Your task to perform on an android device: add a contact in the contacts app Image 0: 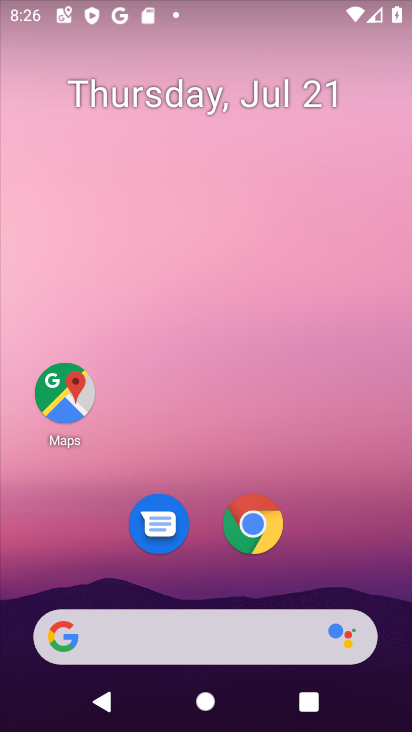
Step 0: drag from (192, 627) to (273, 143)
Your task to perform on an android device: add a contact in the contacts app Image 1: 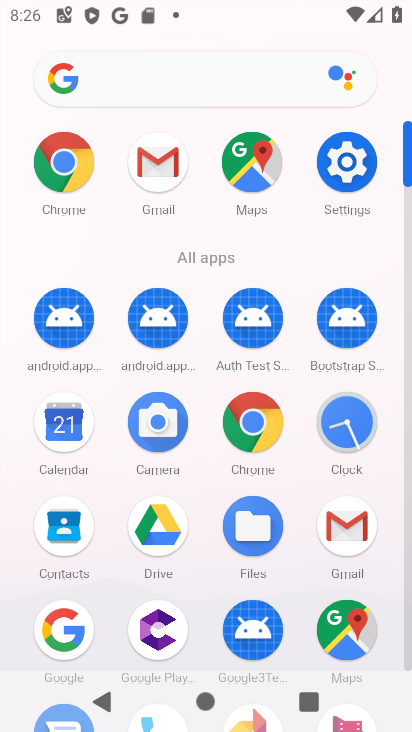
Step 1: click (56, 524)
Your task to perform on an android device: add a contact in the contacts app Image 2: 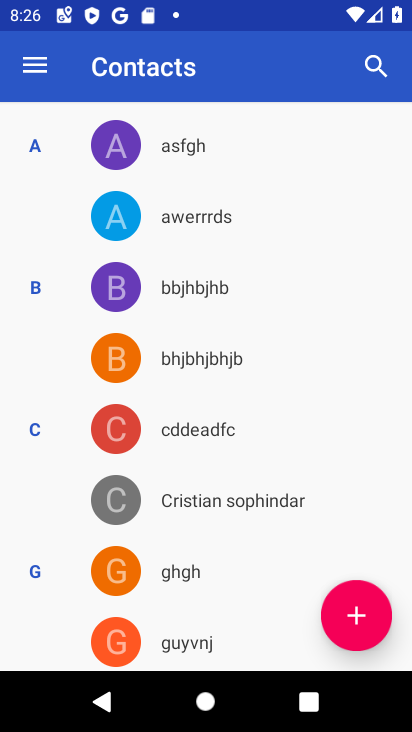
Step 2: click (366, 615)
Your task to perform on an android device: add a contact in the contacts app Image 3: 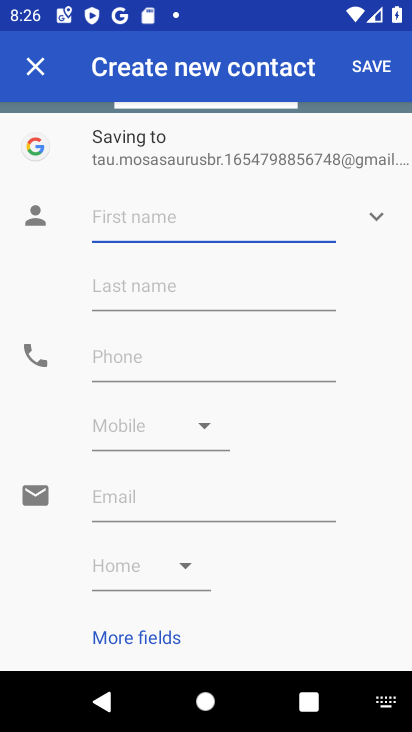
Step 3: type "buwklohg"
Your task to perform on an android device: add a contact in the contacts app Image 4: 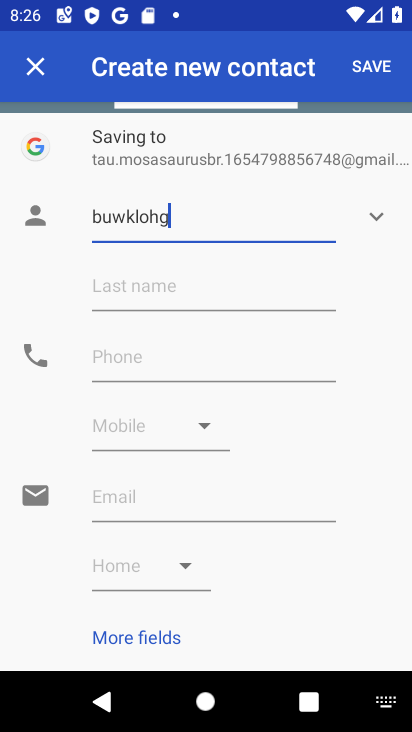
Step 4: click (98, 345)
Your task to perform on an android device: add a contact in the contacts app Image 5: 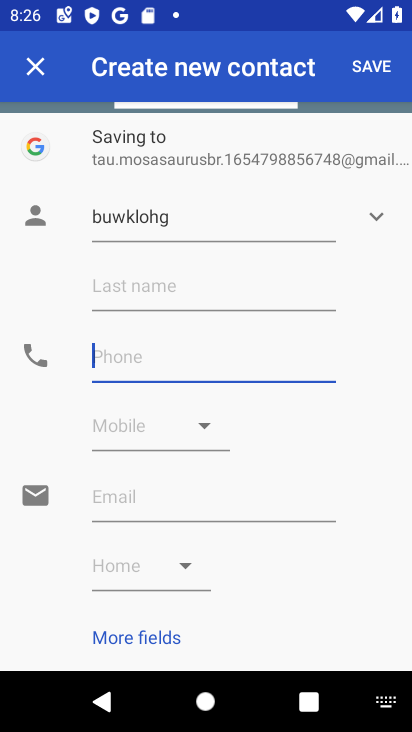
Step 5: type "152876"
Your task to perform on an android device: add a contact in the contacts app Image 6: 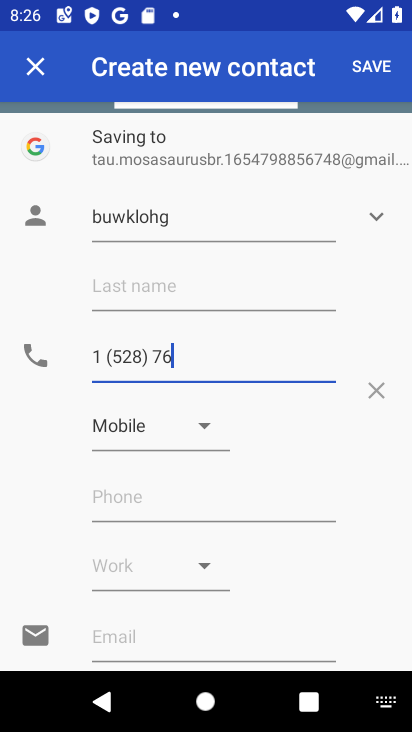
Step 6: click (380, 59)
Your task to perform on an android device: add a contact in the contacts app Image 7: 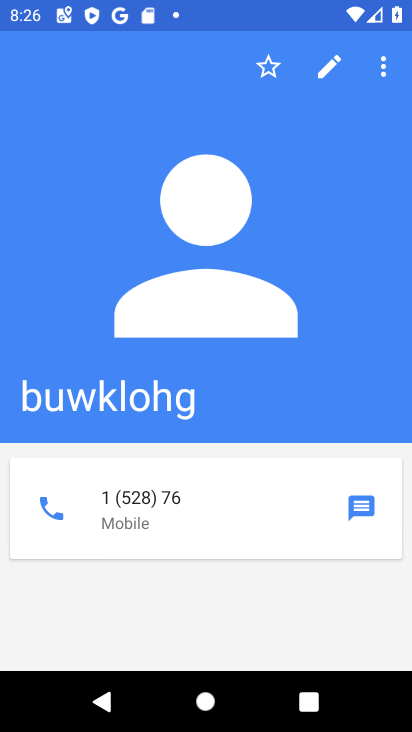
Step 7: task complete